Your task to perform on an android device: Open eBay Image 0: 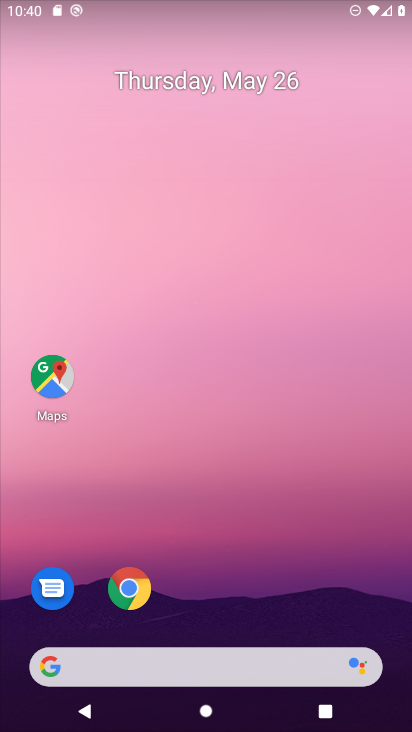
Step 0: click (127, 590)
Your task to perform on an android device: Open eBay Image 1: 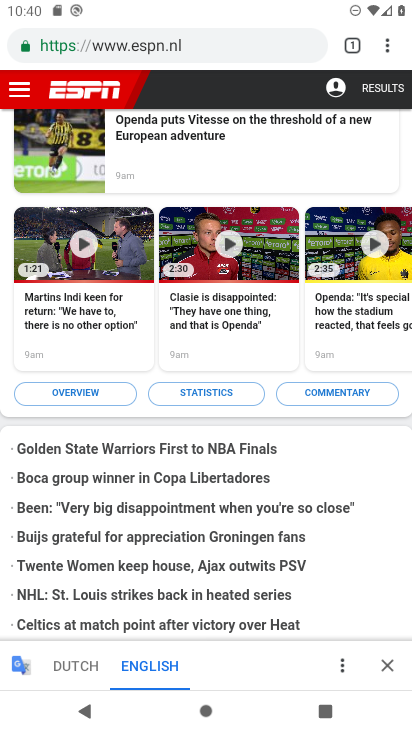
Step 1: click (260, 51)
Your task to perform on an android device: Open eBay Image 2: 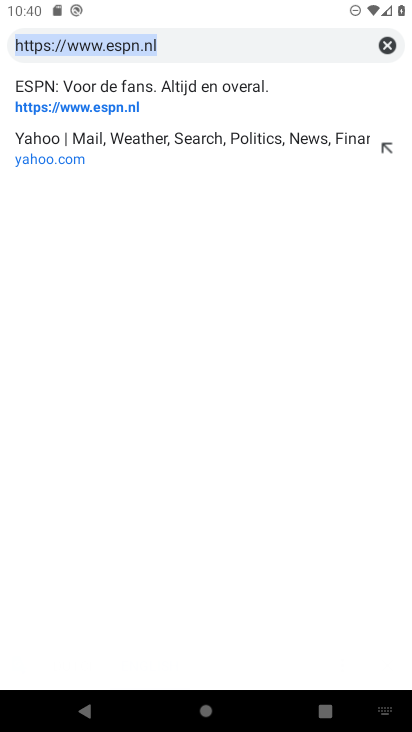
Step 2: click (382, 44)
Your task to perform on an android device: Open eBay Image 3: 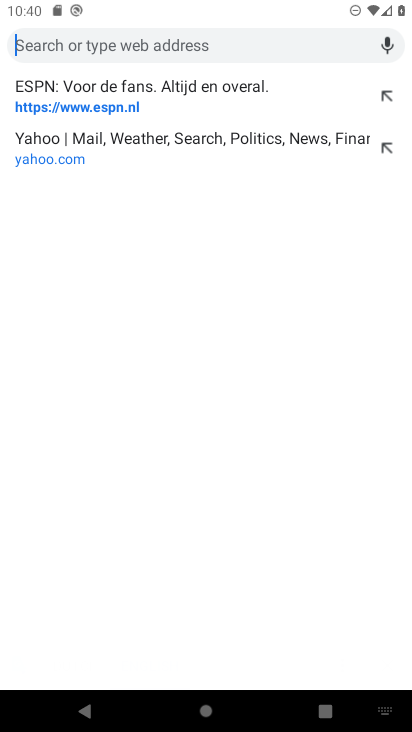
Step 3: type "ebay"
Your task to perform on an android device: Open eBay Image 4: 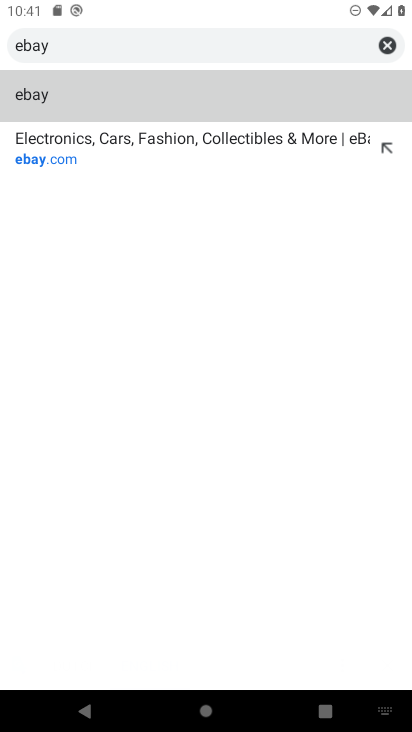
Step 4: click (57, 96)
Your task to perform on an android device: Open eBay Image 5: 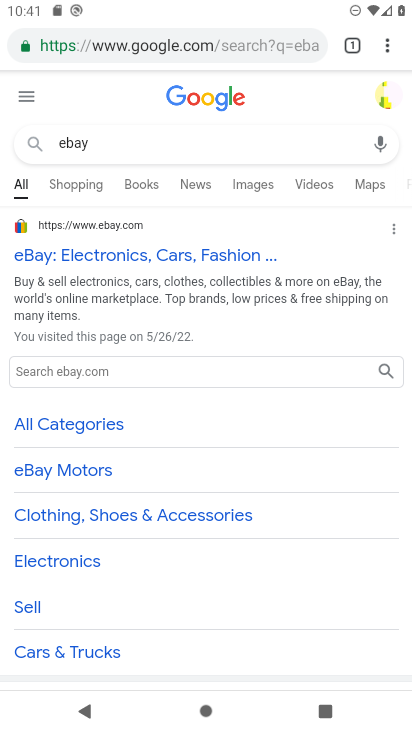
Step 5: click (54, 233)
Your task to perform on an android device: Open eBay Image 6: 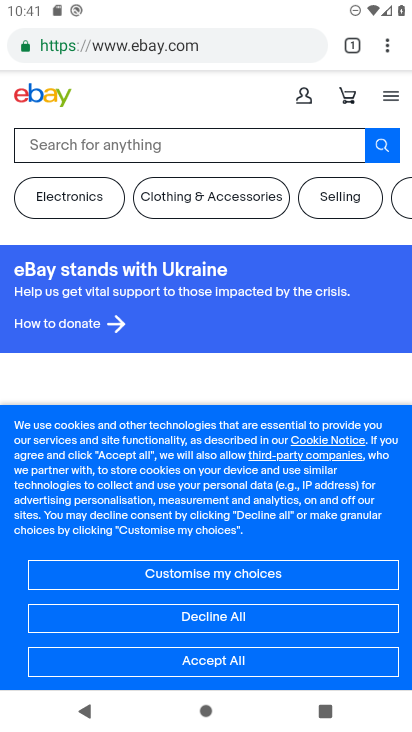
Step 6: task complete